Your task to perform on an android device: turn on translation in the chrome app Image 0: 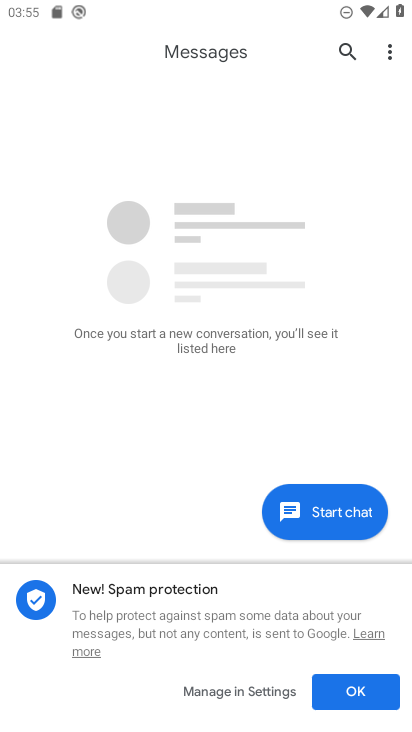
Step 0: press home button
Your task to perform on an android device: turn on translation in the chrome app Image 1: 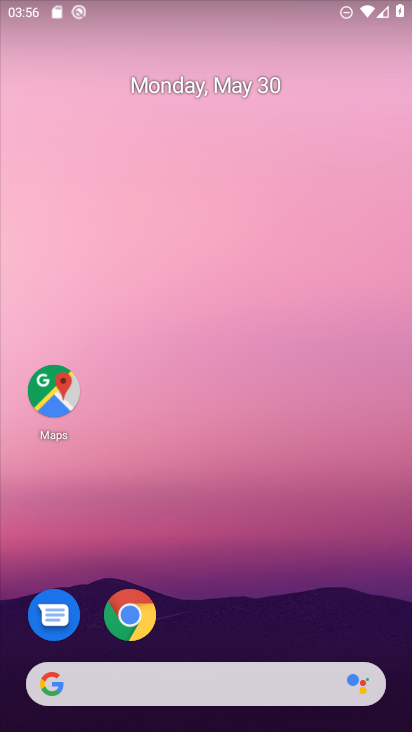
Step 1: click (131, 616)
Your task to perform on an android device: turn on translation in the chrome app Image 2: 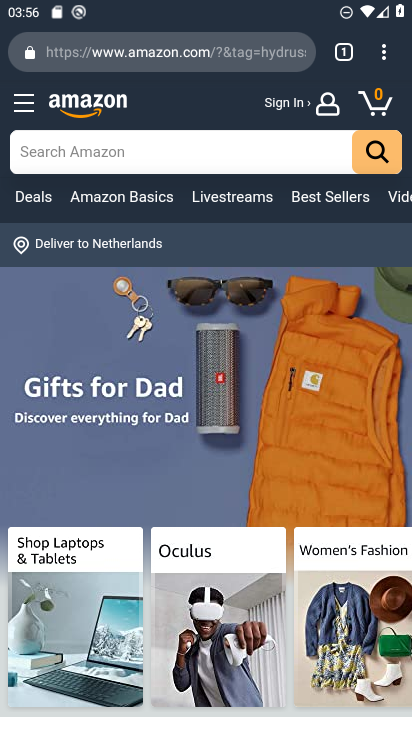
Step 2: click (384, 53)
Your task to perform on an android device: turn on translation in the chrome app Image 3: 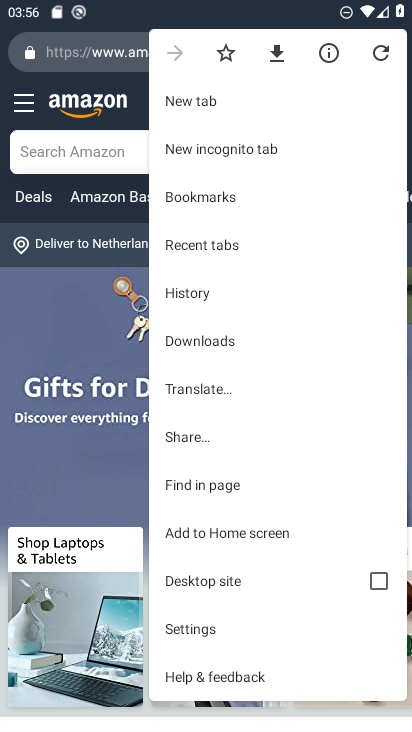
Step 3: drag from (213, 414) to (211, 345)
Your task to perform on an android device: turn on translation in the chrome app Image 4: 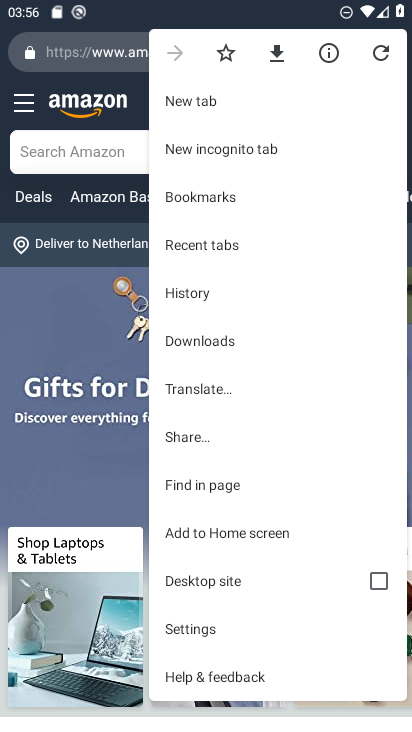
Step 4: click (195, 629)
Your task to perform on an android device: turn on translation in the chrome app Image 5: 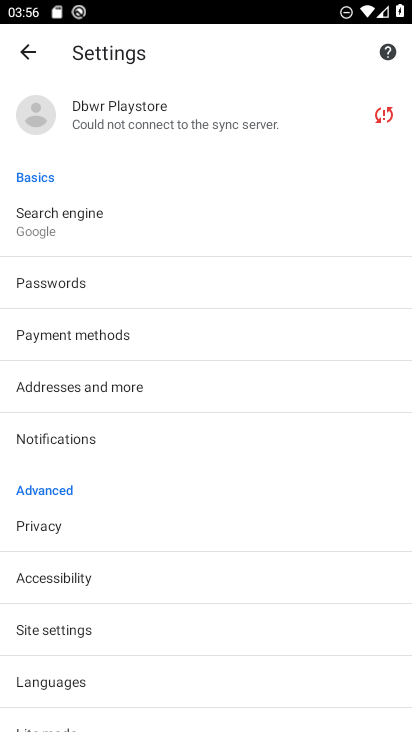
Step 5: drag from (136, 483) to (129, 372)
Your task to perform on an android device: turn on translation in the chrome app Image 6: 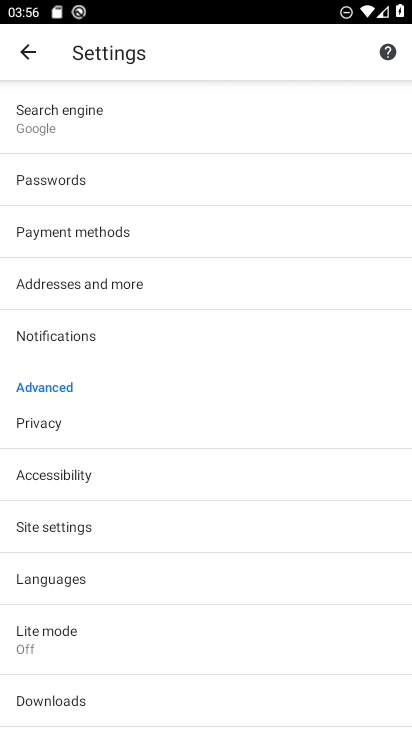
Step 6: click (82, 576)
Your task to perform on an android device: turn on translation in the chrome app Image 7: 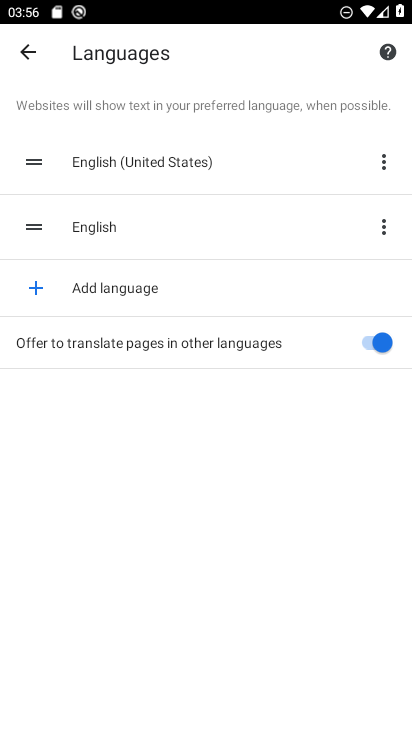
Step 7: task complete